Your task to perform on an android device: uninstall "Booking.com: Hotels and more" Image 0: 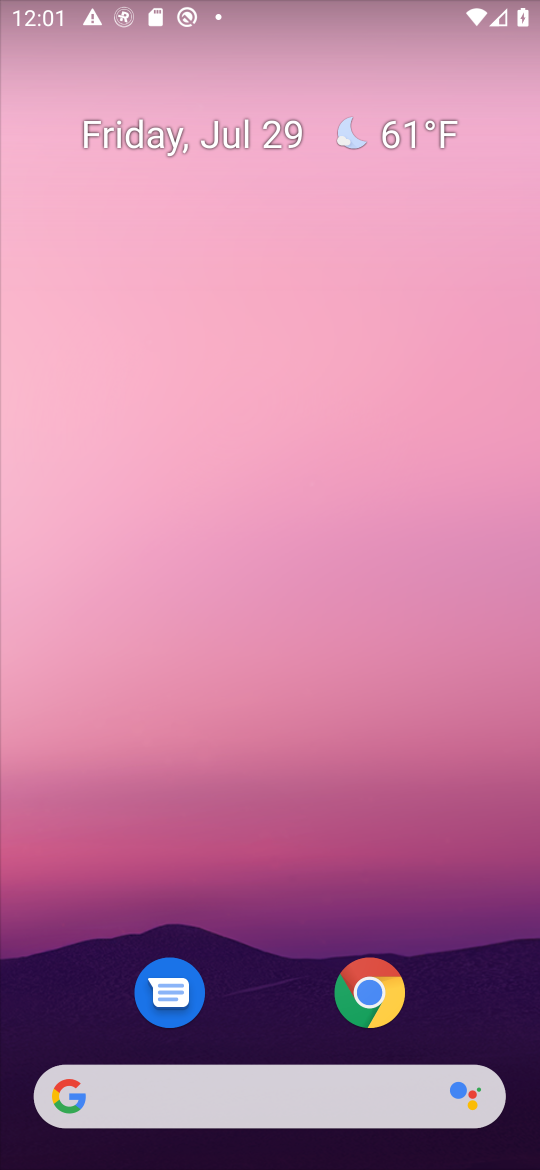
Step 0: drag from (222, 1115) to (271, 344)
Your task to perform on an android device: uninstall "Booking.com: Hotels and more" Image 1: 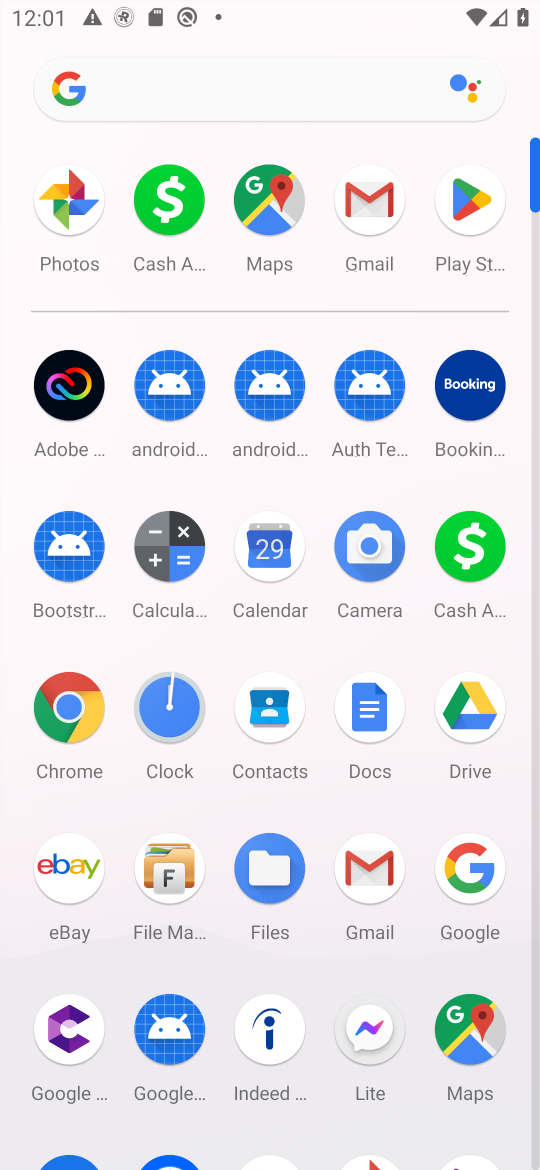
Step 1: click (461, 199)
Your task to perform on an android device: uninstall "Booking.com: Hotels and more" Image 2: 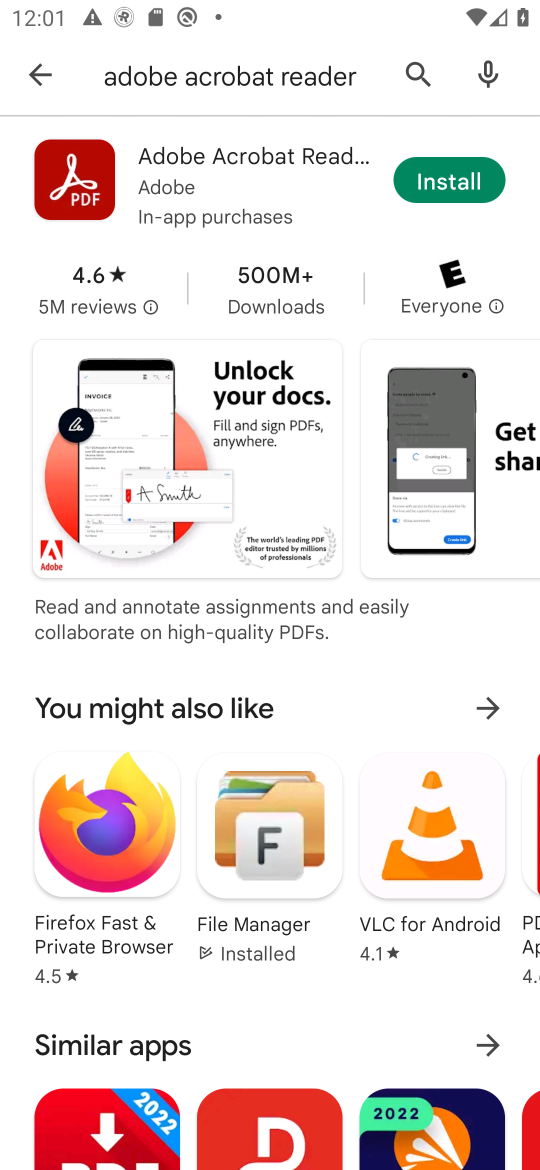
Step 2: click (418, 73)
Your task to perform on an android device: uninstall "Booking.com: Hotels and more" Image 3: 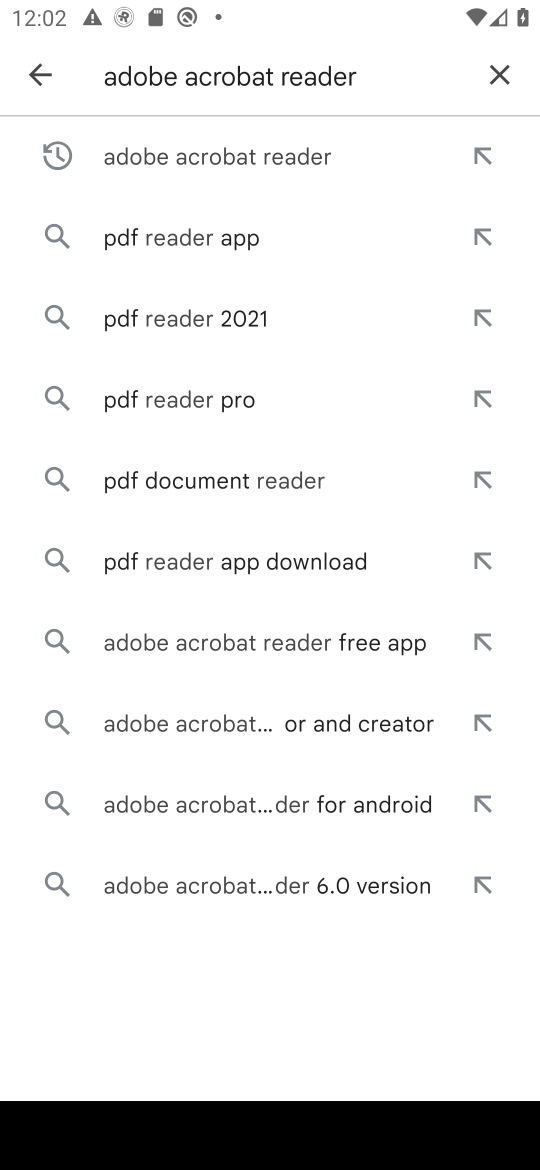
Step 3: click (513, 81)
Your task to perform on an android device: uninstall "Booking.com: Hotels and more" Image 4: 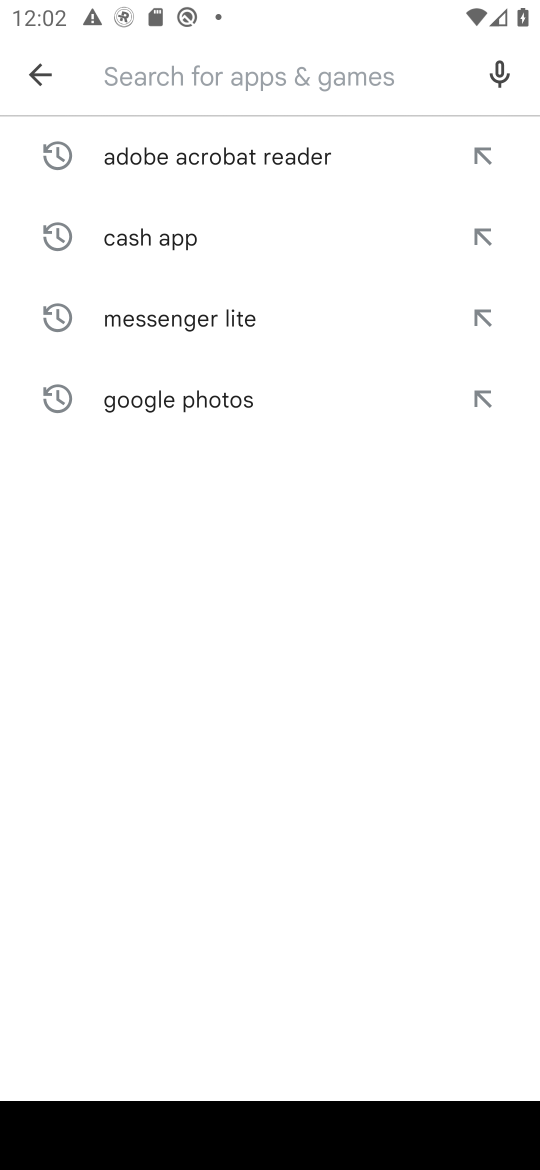
Step 4: click (211, 86)
Your task to perform on an android device: uninstall "Booking.com: Hotels and more" Image 5: 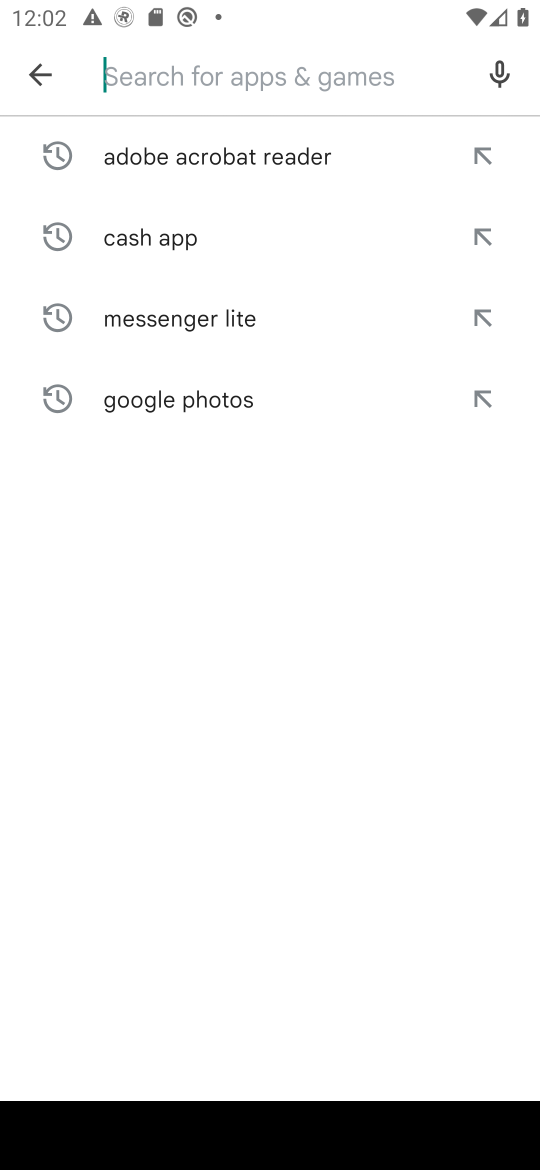
Step 5: type "Booking.com: Hotels and more"
Your task to perform on an android device: uninstall "Booking.com: Hotels and more" Image 6: 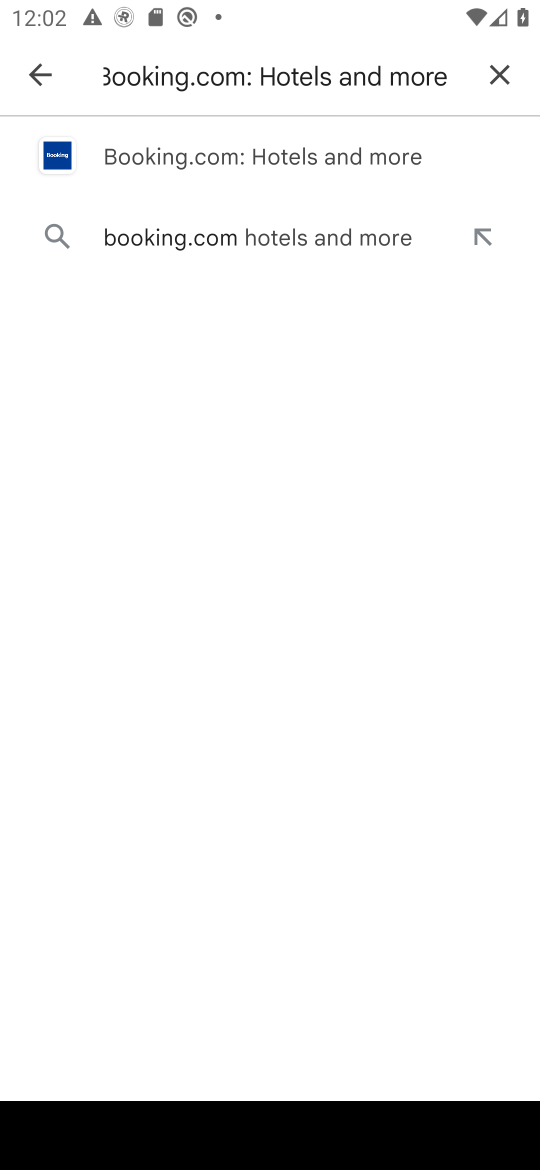
Step 6: click (252, 164)
Your task to perform on an android device: uninstall "Booking.com: Hotels and more" Image 7: 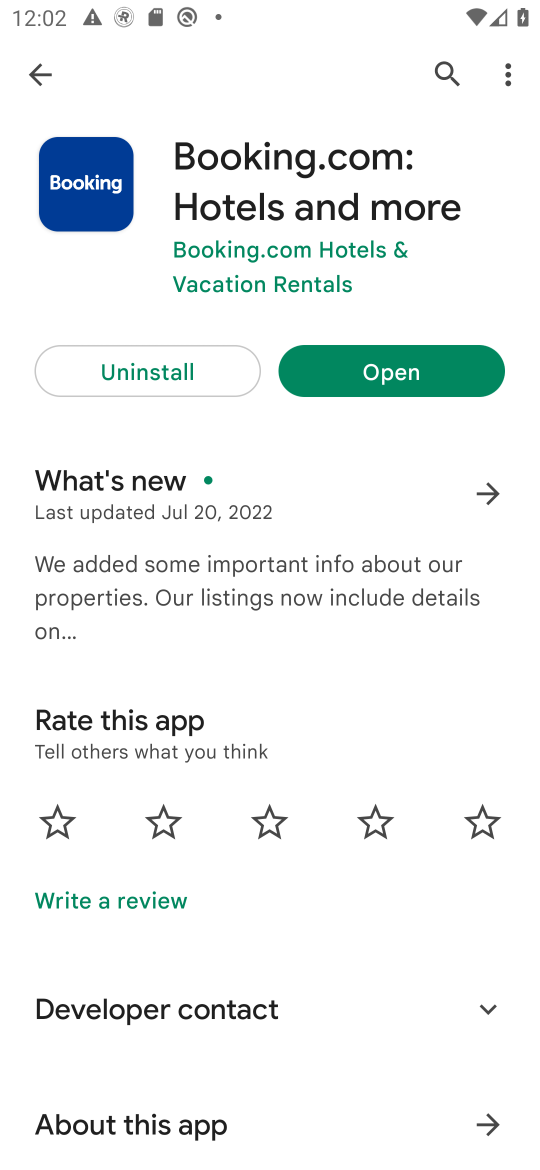
Step 7: click (158, 371)
Your task to perform on an android device: uninstall "Booking.com: Hotels and more" Image 8: 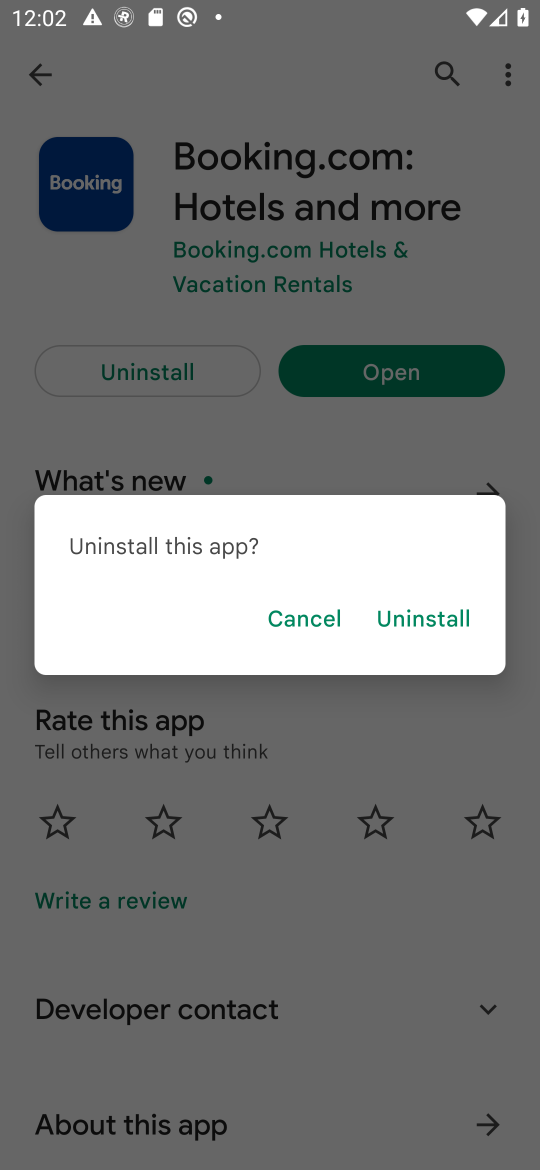
Step 8: click (437, 615)
Your task to perform on an android device: uninstall "Booking.com: Hotels and more" Image 9: 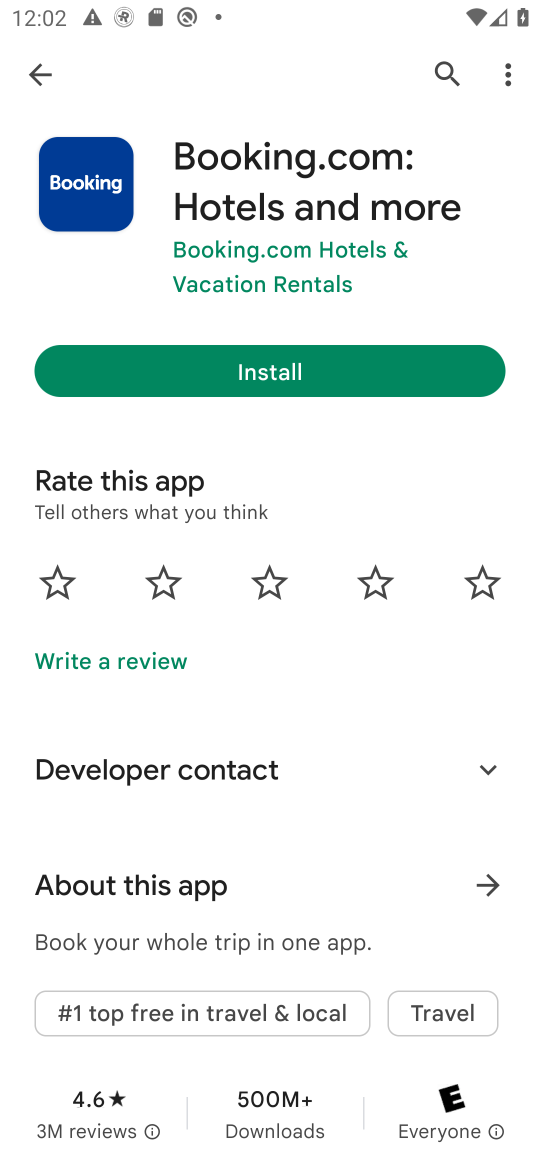
Step 9: task complete